Your task to perform on an android device: change timer sound Image 0: 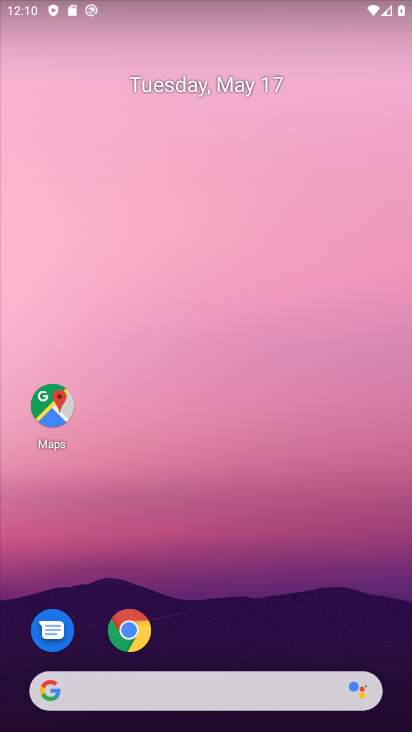
Step 0: drag from (205, 665) to (335, 169)
Your task to perform on an android device: change timer sound Image 1: 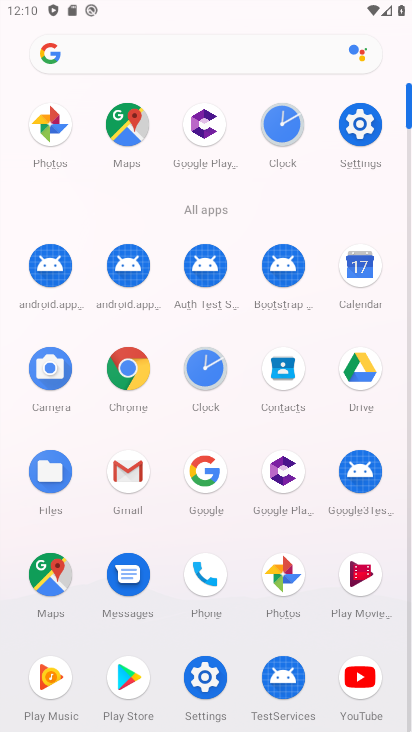
Step 1: click (221, 373)
Your task to perform on an android device: change timer sound Image 2: 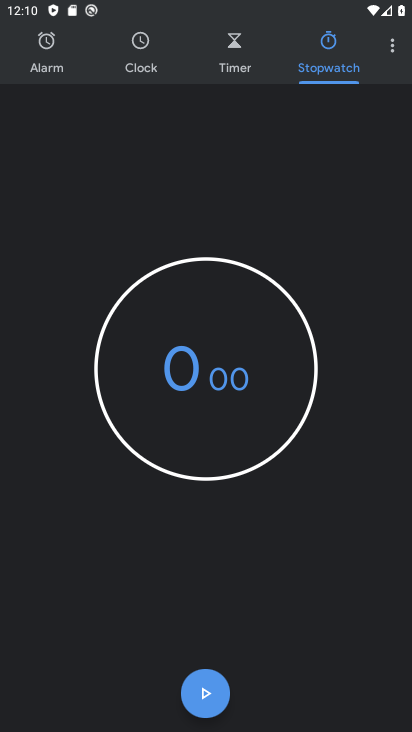
Step 2: click (397, 46)
Your task to perform on an android device: change timer sound Image 3: 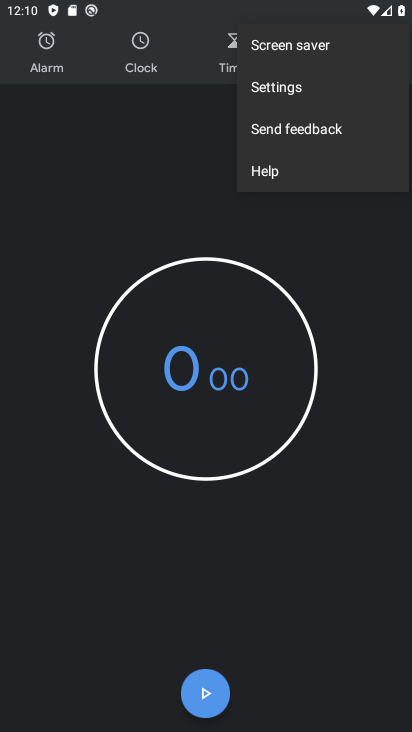
Step 3: click (378, 88)
Your task to perform on an android device: change timer sound Image 4: 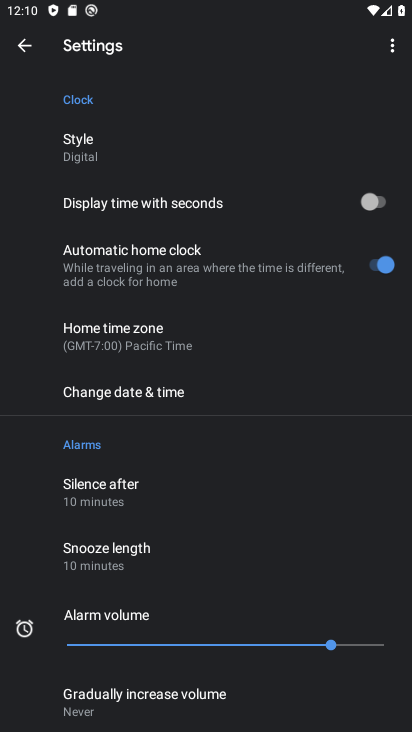
Step 4: drag from (194, 589) to (289, 222)
Your task to perform on an android device: change timer sound Image 5: 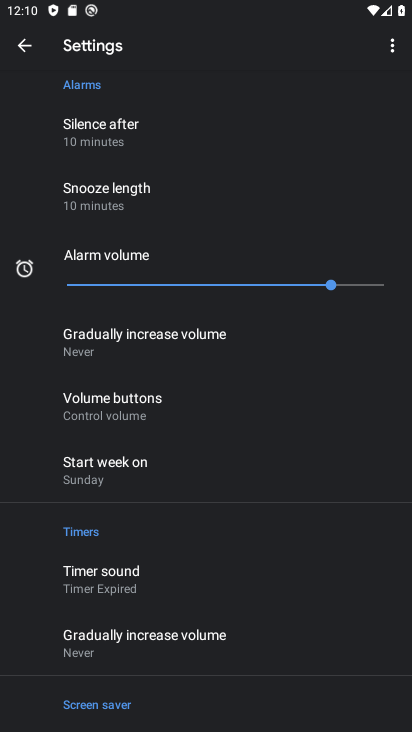
Step 5: click (167, 583)
Your task to perform on an android device: change timer sound Image 6: 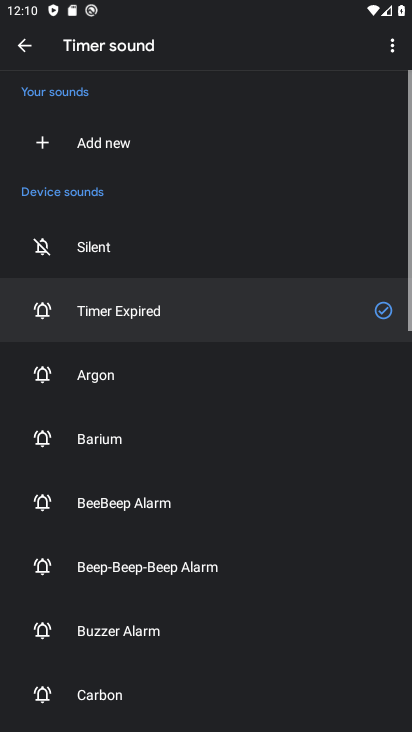
Step 6: drag from (229, 661) to (326, 305)
Your task to perform on an android device: change timer sound Image 7: 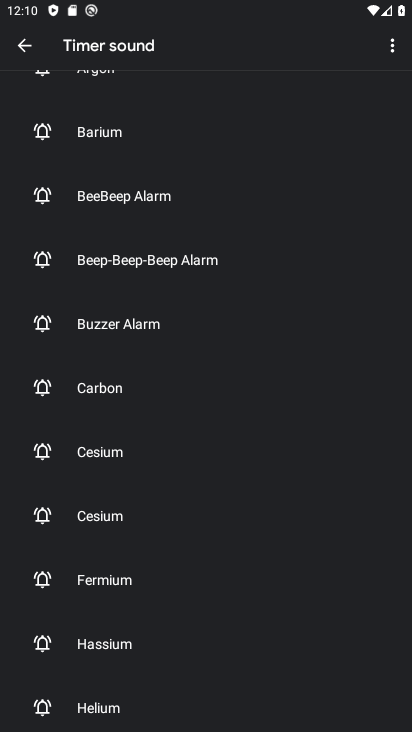
Step 7: click (180, 637)
Your task to perform on an android device: change timer sound Image 8: 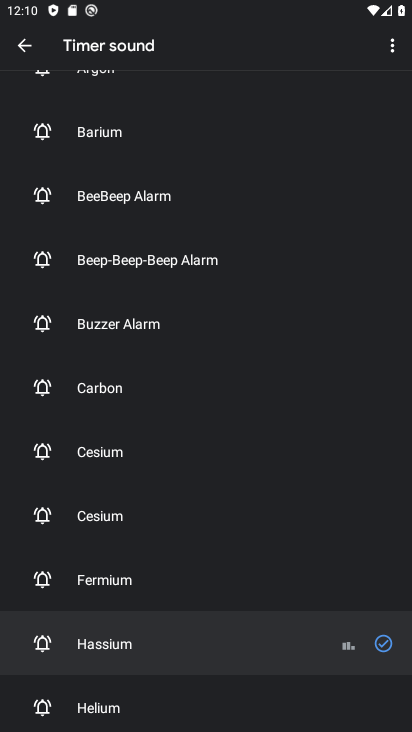
Step 8: task complete